Your task to perform on an android device: Go to settings Image 0: 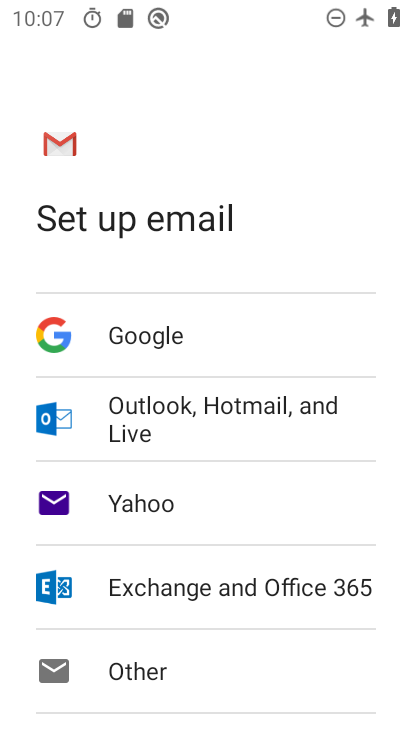
Step 0: press home button
Your task to perform on an android device: Go to settings Image 1: 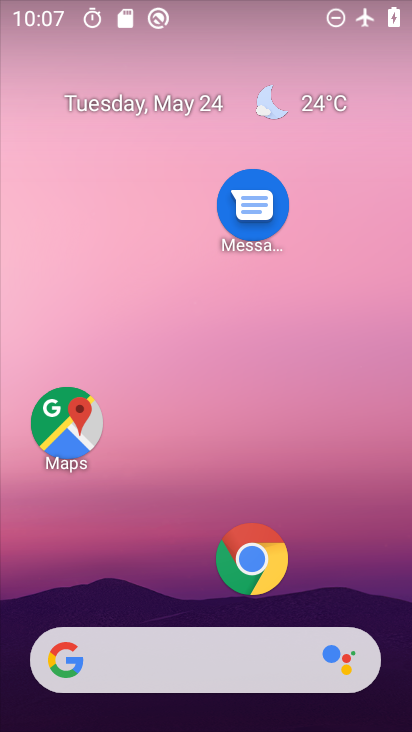
Step 1: drag from (197, 615) to (207, 233)
Your task to perform on an android device: Go to settings Image 2: 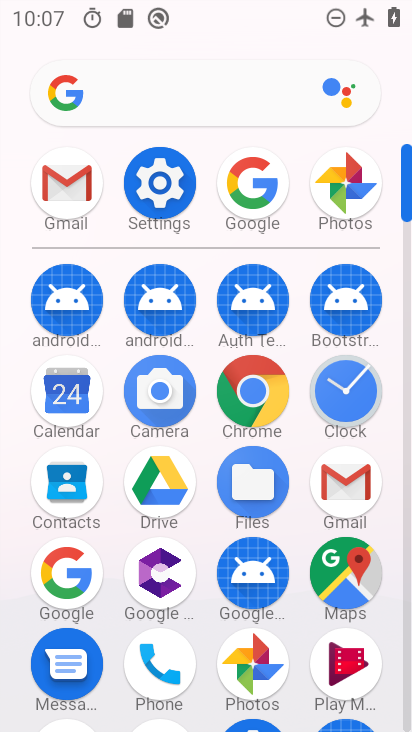
Step 2: click (157, 201)
Your task to perform on an android device: Go to settings Image 3: 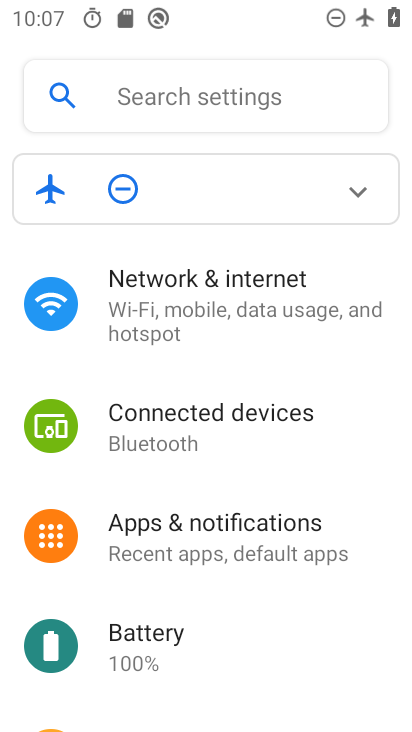
Step 3: task complete